Your task to perform on an android device: toggle translation in the chrome app Image 0: 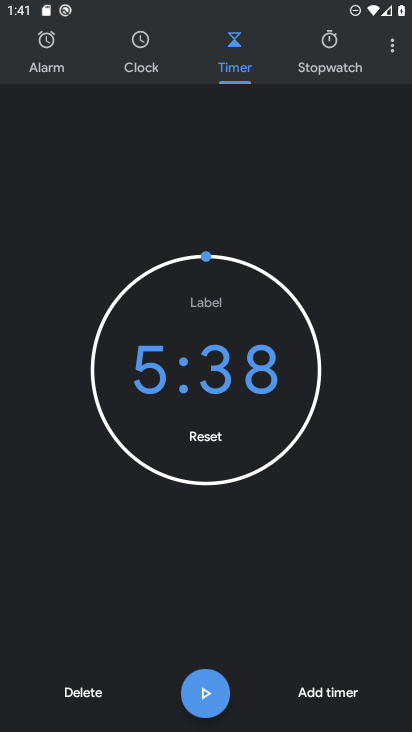
Step 0: press home button
Your task to perform on an android device: toggle translation in the chrome app Image 1: 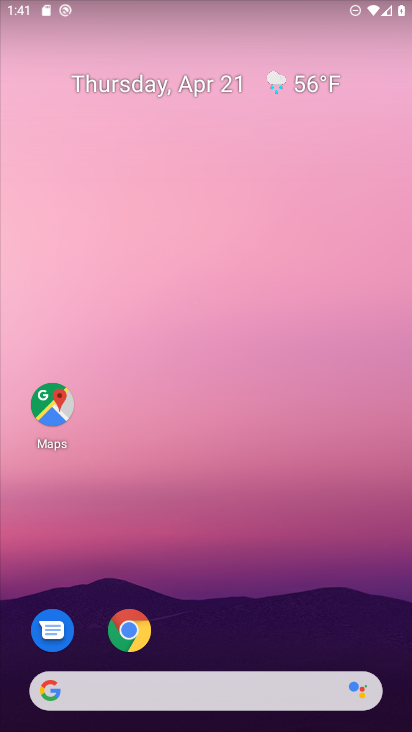
Step 1: click (141, 630)
Your task to perform on an android device: toggle translation in the chrome app Image 2: 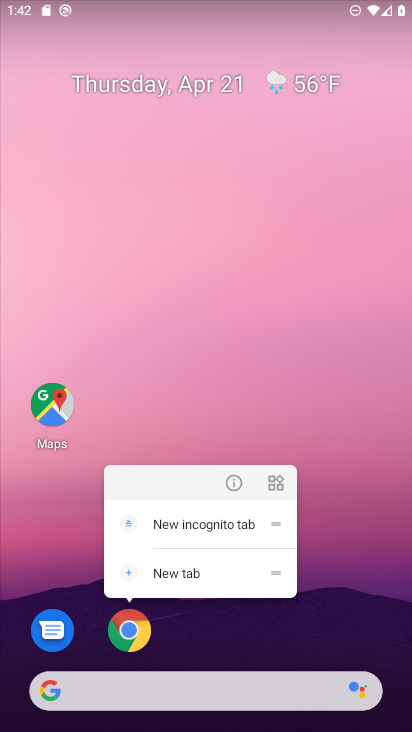
Step 2: click (152, 631)
Your task to perform on an android device: toggle translation in the chrome app Image 3: 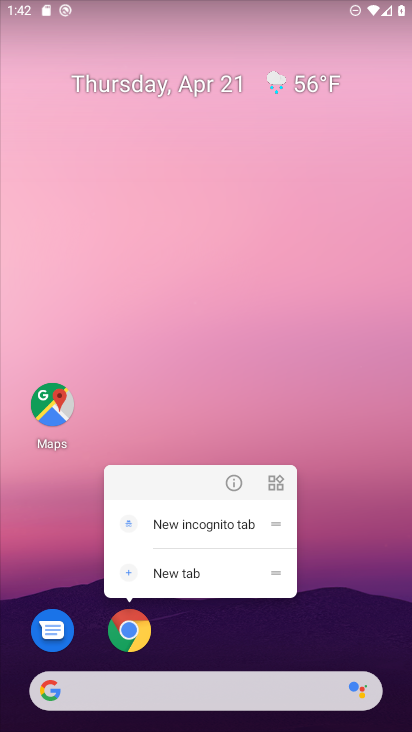
Step 3: click (150, 648)
Your task to perform on an android device: toggle translation in the chrome app Image 4: 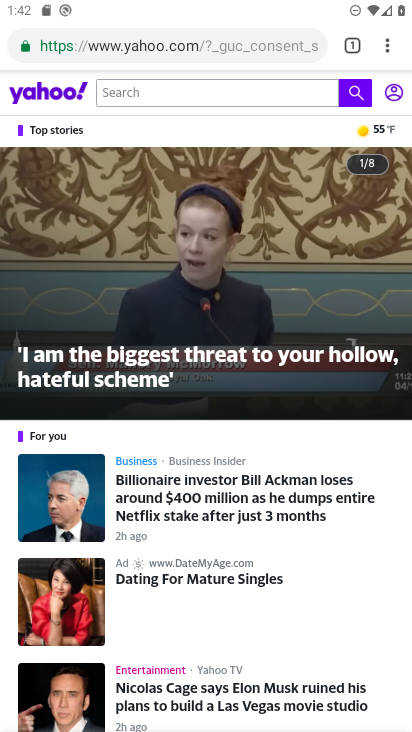
Step 4: drag from (392, 45) to (250, 606)
Your task to perform on an android device: toggle translation in the chrome app Image 5: 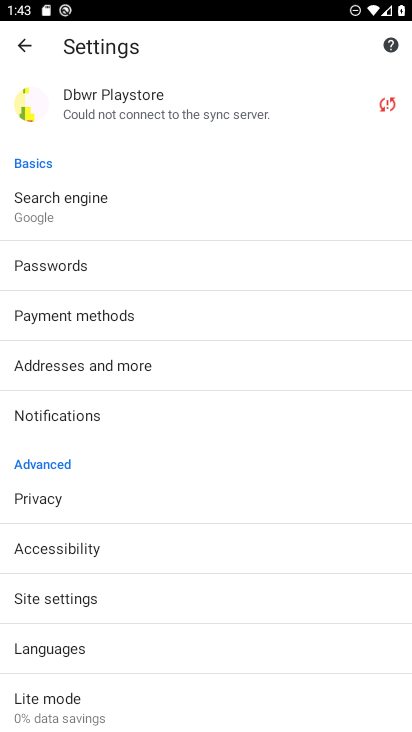
Step 5: click (106, 642)
Your task to perform on an android device: toggle translation in the chrome app Image 6: 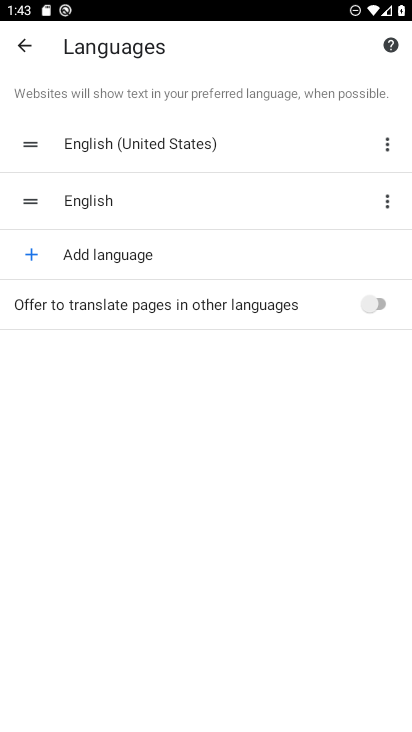
Step 6: click (377, 306)
Your task to perform on an android device: toggle translation in the chrome app Image 7: 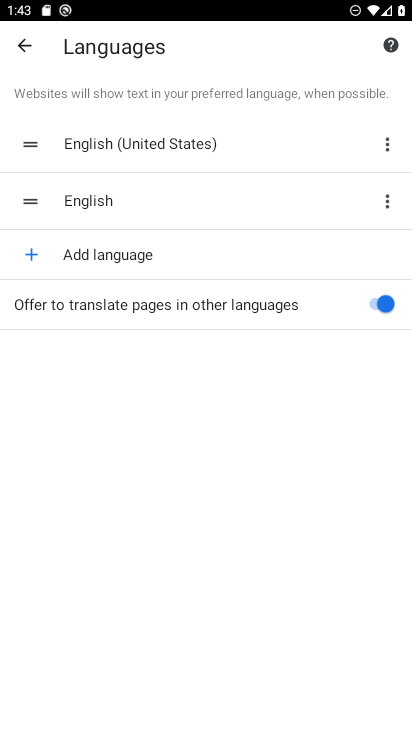
Step 7: task complete